Your task to perform on an android device: When is my next meeting? Image 0: 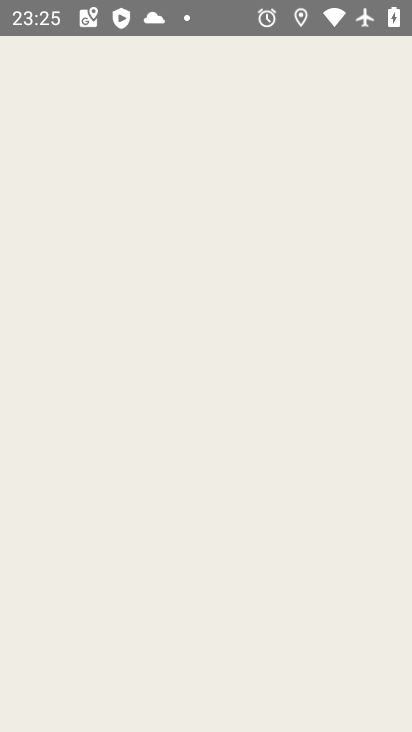
Step 0: press home button
Your task to perform on an android device: When is my next meeting? Image 1: 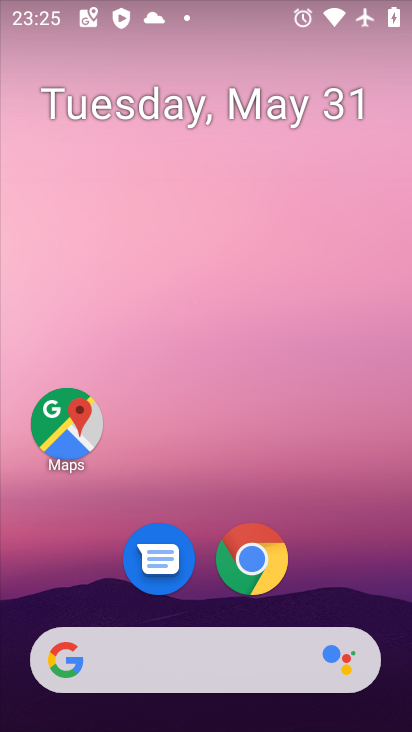
Step 1: drag from (332, 585) to (346, 28)
Your task to perform on an android device: When is my next meeting? Image 2: 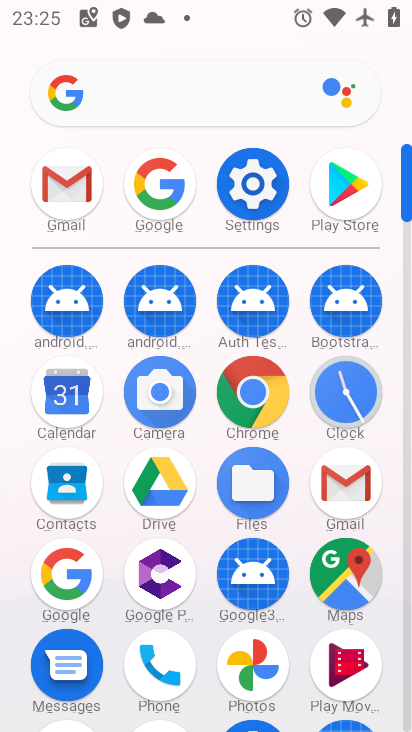
Step 2: click (68, 400)
Your task to perform on an android device: When is my next meeting? Image 3: 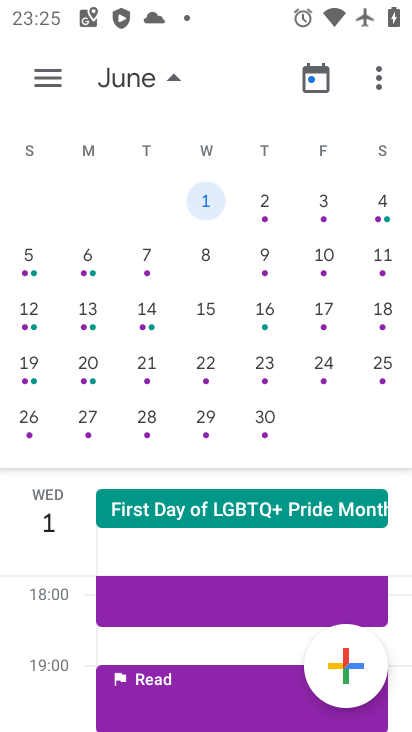
Step 3: click (263, 200)
Your task to perform on an android device: When is my next meeting? Image 4: 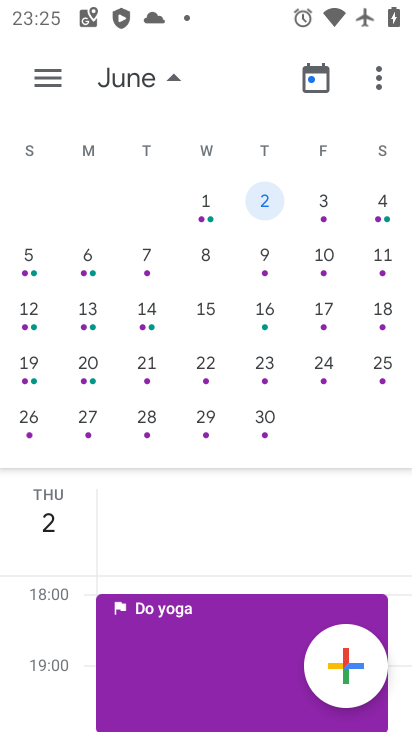
Step 4: task complete